Your task to perform on an android device: See recent photos Image 0: 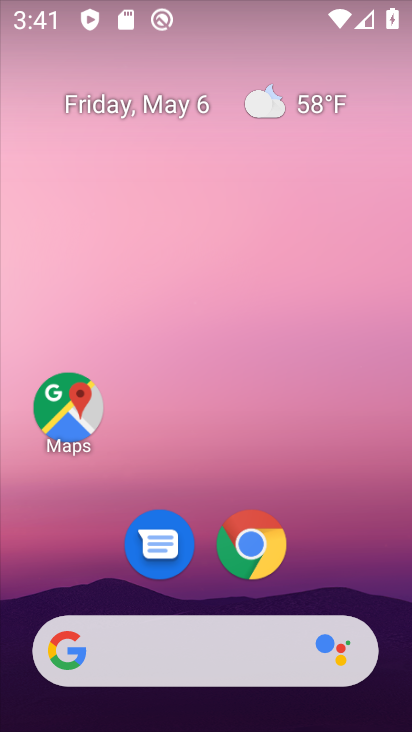
Step 0: drag from (73, 616) to (231, 68)
Your task to perform on an android device: See recent photos Image 1: 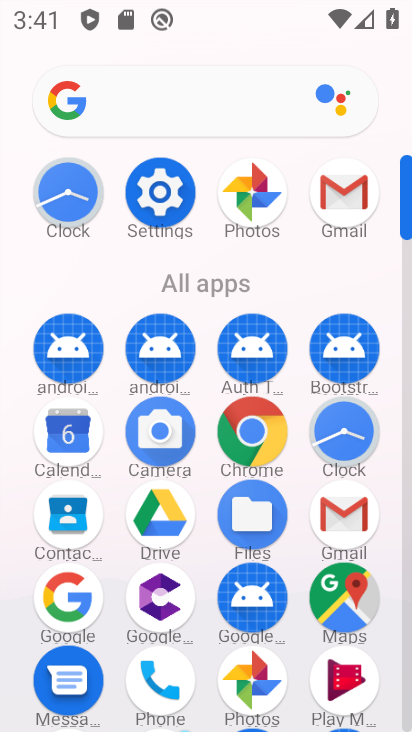
Step 1: drag from (170, 593) to (280, 283)
Your task to perform on an android device: See recent photos Image 2: 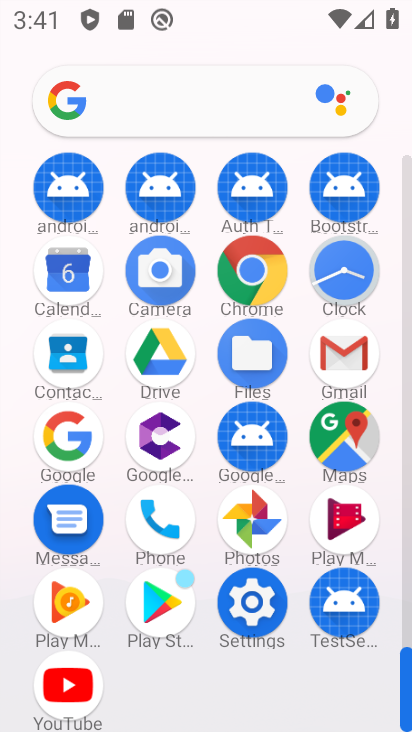
Step 2: click (251, 516)
Your task to perform on an android device: See recent photos Image 3: 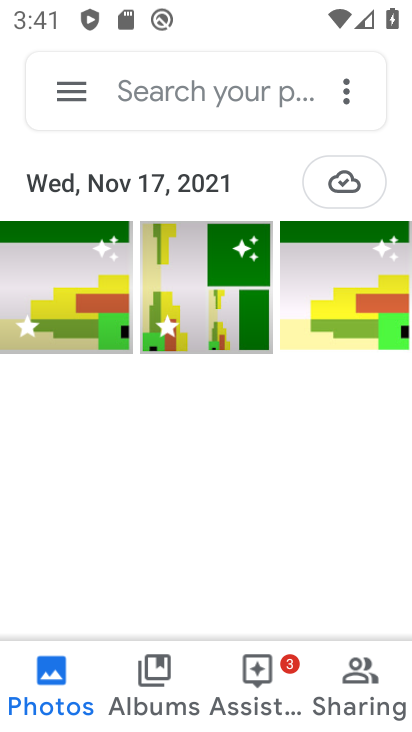
Step 3: task complete